Your task to perform on an android device: What's the weather today? Image 0: 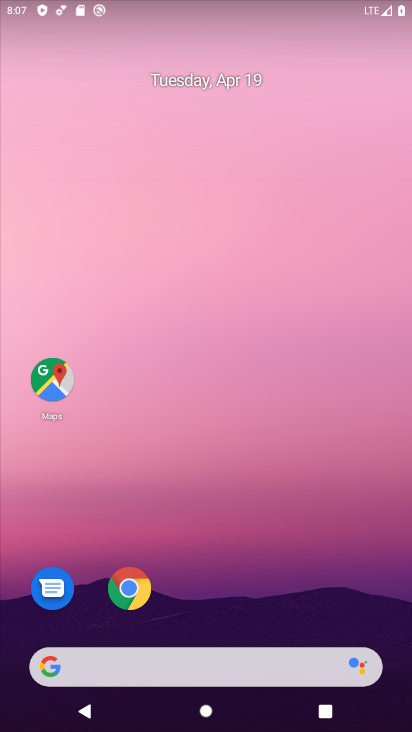
Step 0: drag from (7, 225) to (411, 267)
Your task to perform on an android device: What's the weather today? Image 1: 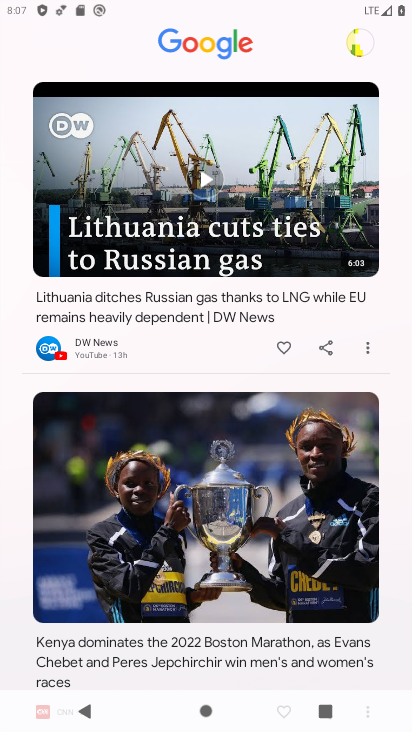
Step 1: task complete